Your task to perform on an android device: toggle javascript in the chrome app Image 0: 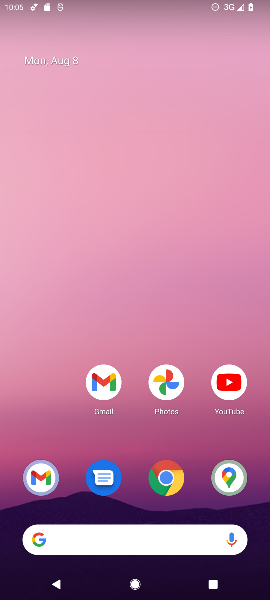
Step 0: click (176, 476)
Your task to perform on an android device: toggle javascript in the chrome app Image 1: 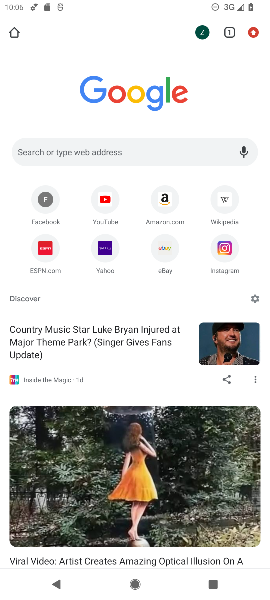
Step 1: drag from (251, 33) to (165, 315)
Your task to perform on an android device: toggle javascript in the chrome app Image 2: 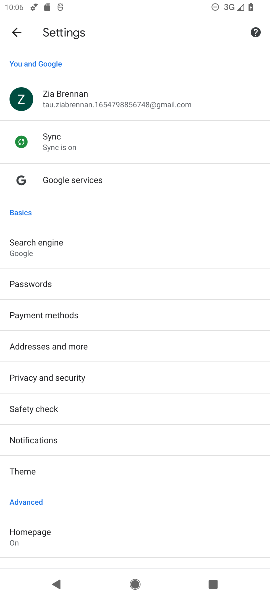
Step 2: drag from (85, 408) to (102, 26)
Your task to perform on an android device: toggle javascript in the chrome app Image 3: 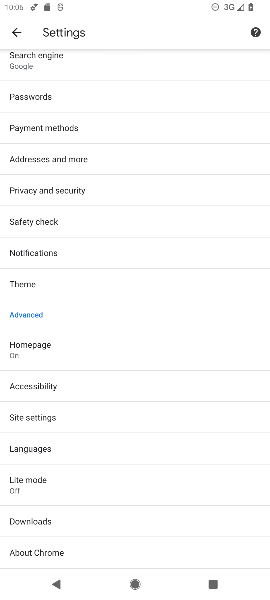
Step 3: click (46, 423)
Your task to perform on an android device: toggle javascript in the chrome app Image 4: 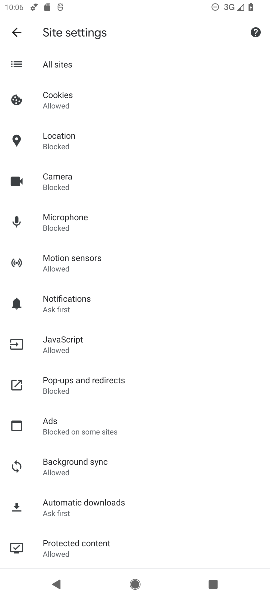
Step 4: click (47, 350)
Your task to perform on an android device: toggle javascript in the chrome app Image 5: 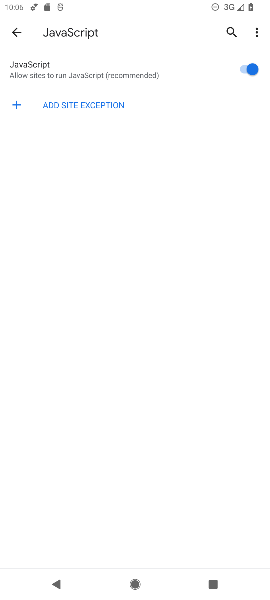
Step 5: click (251, 70)
Your task to perform on an android device: toggle javascript in the chrome app Image 6: 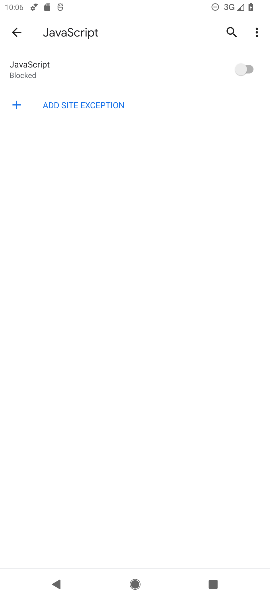
Step 6: task complete